Your task to perform on an android device: What's on my calendar tomorrow? Image 0: 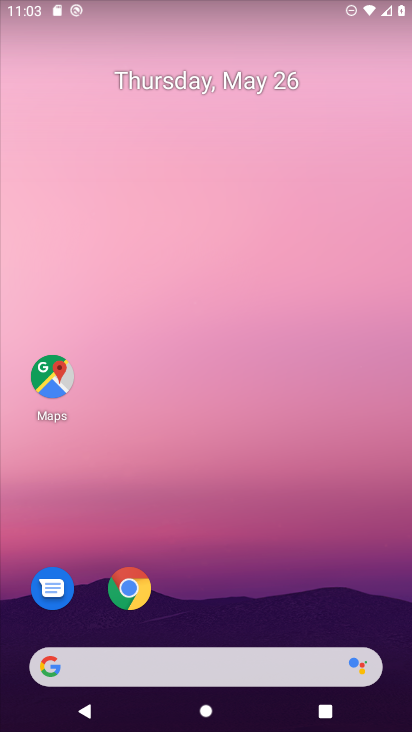
Step 0: drag from (365, 623) to (326, 71)
Your task to perform on an android device: What's on my calendar tomorrow? Image 1: 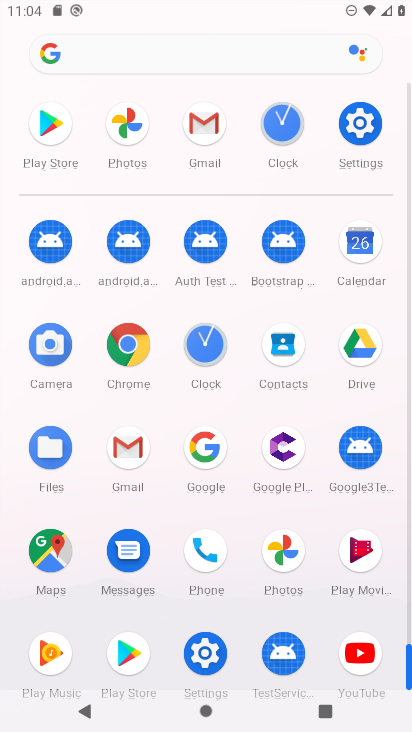
Step 1: click (357, 240)
Your task to perform on an android device: What's on my calendar tomorrow? Image 2: 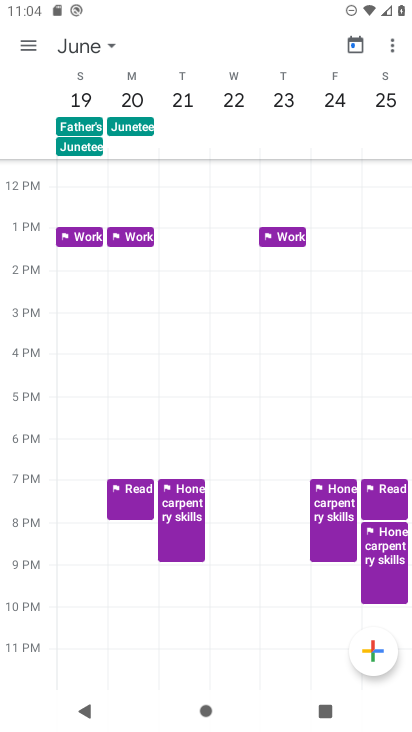
Step 2: click (27, 47)
Your task to perform on an android device: What's on my calendar tomorrow? Image 3: 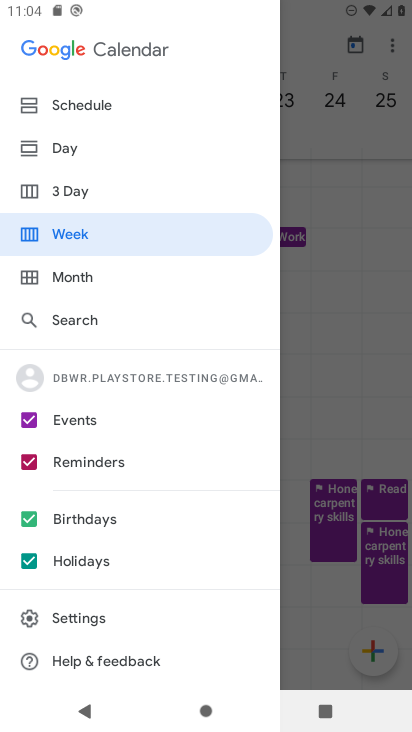
Step 3: click (67, 147)
Your task to perform on an android device: What's on my calendar tomorrow? Image 4: 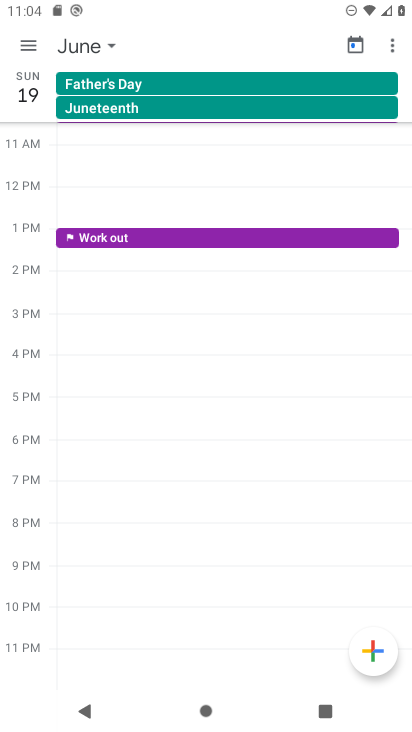
Step 4: click (105, 41)
Your task to perform on an android device: What's on my calendar tomorrow? Image 5: 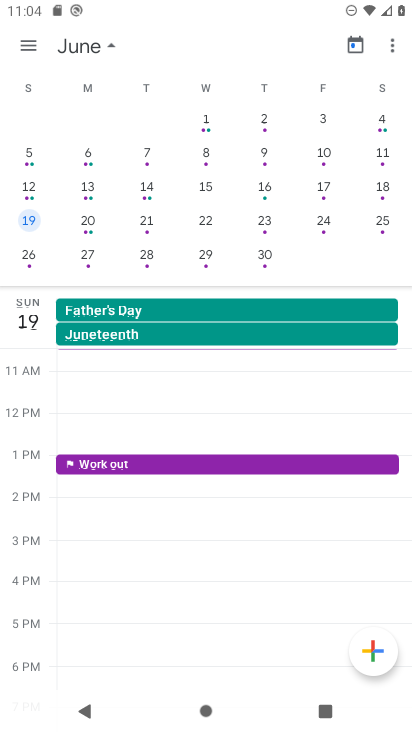
Step 5: drag from (34, 255) to (370, 216)
Your task to perform on an android device: What's on my calendar tomorrow? Image 6: 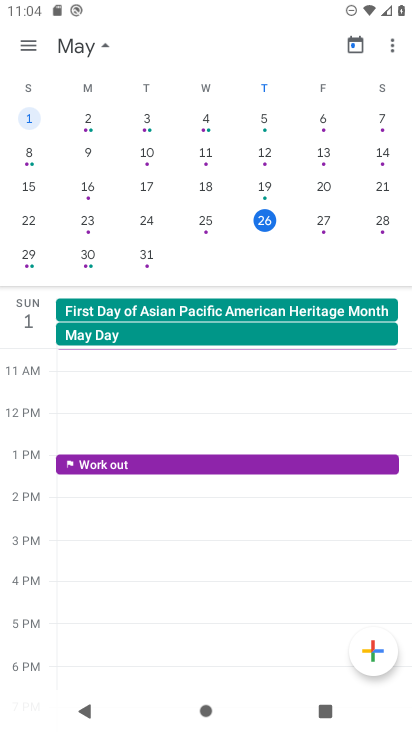
Step 6: click (313, 216)
Your task to perform on an android device: What's on my calendar tomorrow? Image 7: 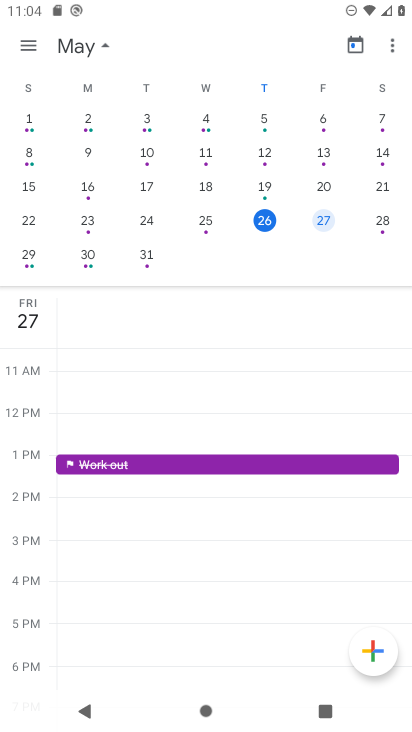
Step 7: task complete